Your task to perform on an android device: Check the news Image 0: 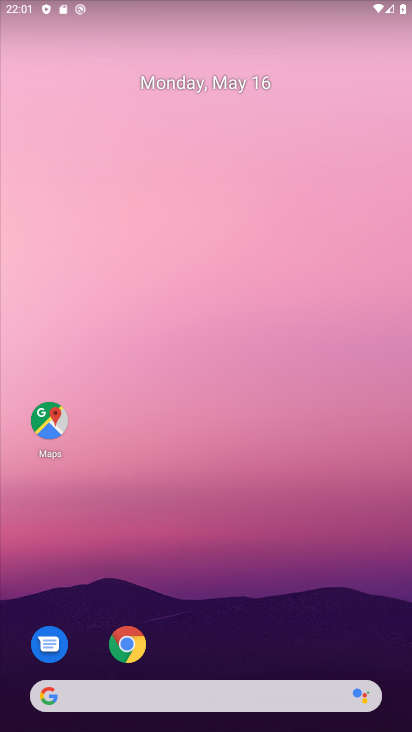
Step 0: click (182, 695)
Your task to perform on an android device: Check the news Image 1: 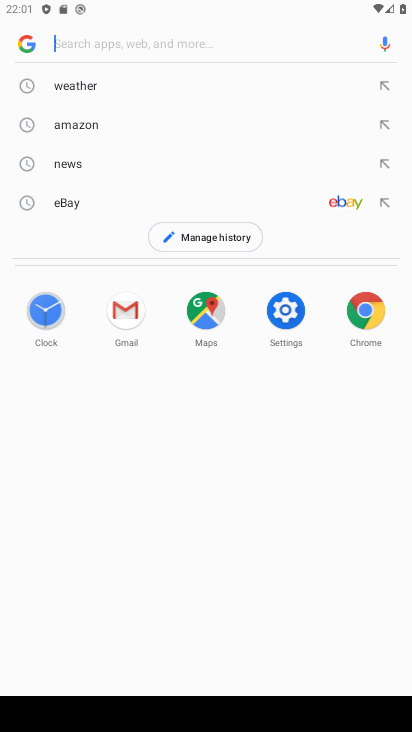
Step 1: click (97, 159)
Your task to perform on an android device: Check the news Image 2: 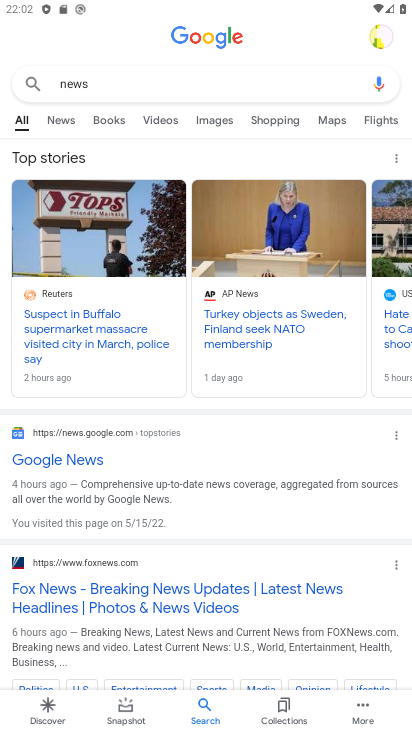
Step 2: task complete